Your task to perform on an android device: Go to Yahoo.com Image 0: 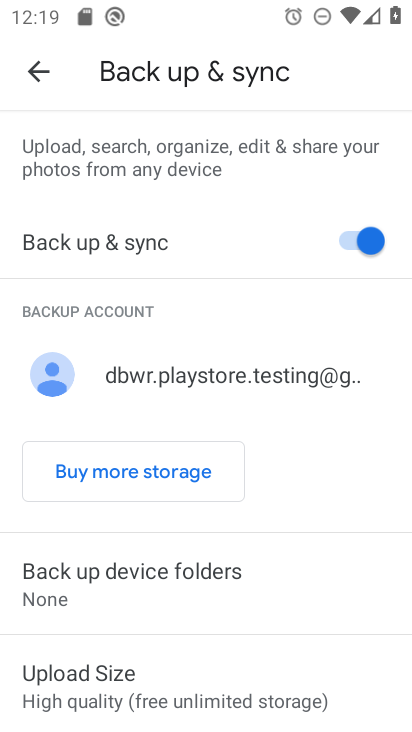
Step 0: press home button
Your task to perform on an android device: Go to Yahoo.com Image 1: 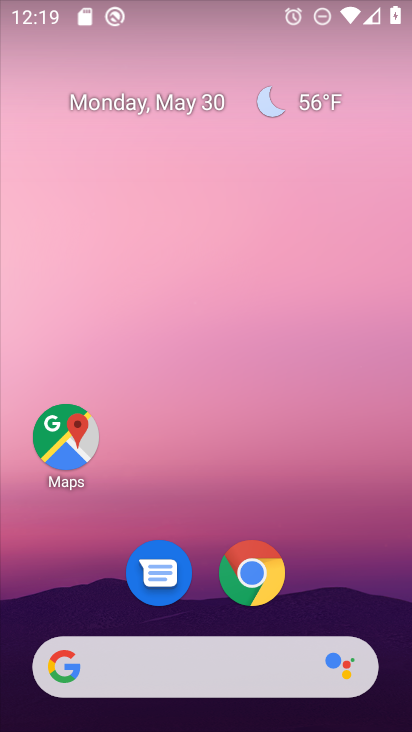
Step 1: drag from (265, 658) to (276, 33)
Your task to perform on an android device: Go to Yahoo.com Image 2: 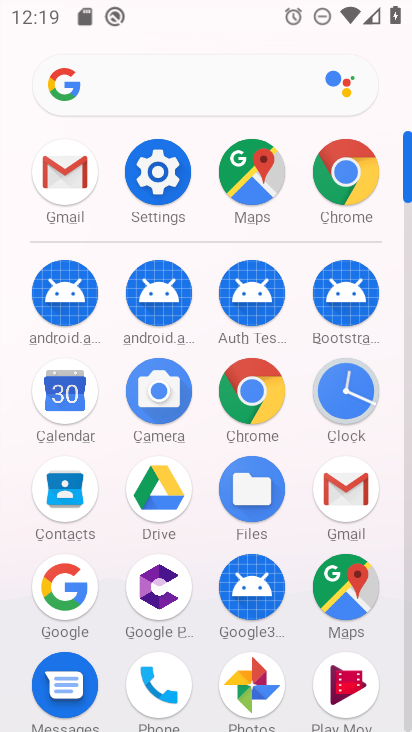
Step 2: click (255, 393)
Your task to perform on an android device: Go to Yahoo.com Image 3: 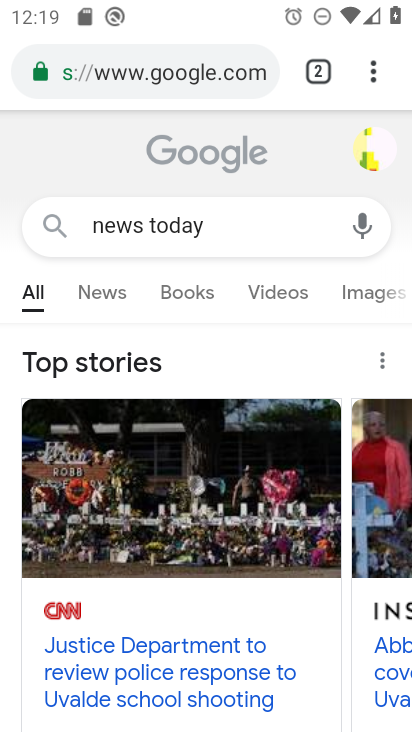
Step 3: drag from (378, 61) to (216, 141)
Your task to perform on an android device: Go to Yahoo.com Image 4: 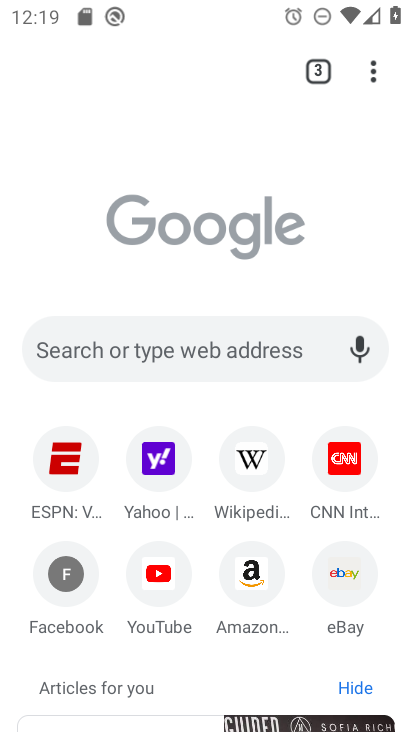
Step 4: click (164, 467)
Your task to perform on an android device: Go to Yahoo.com Image 5: 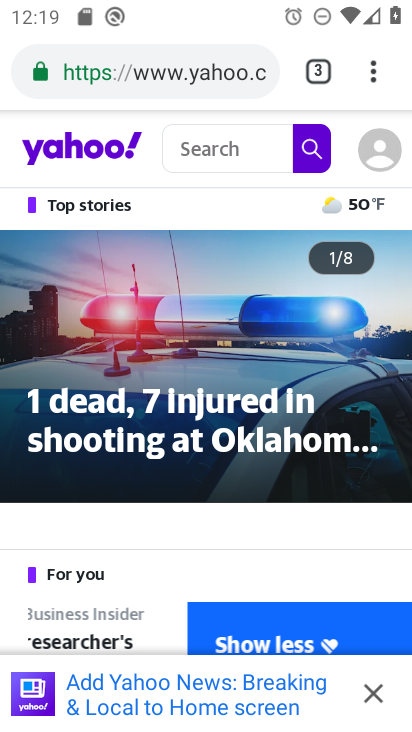
Step 5: task complete